Your task to perform on an android device: turn off smart reply in the gmail app Image 0: 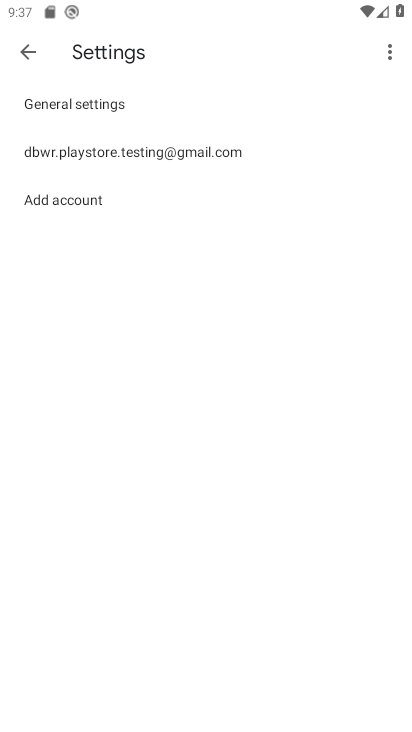
Step 0: press home button
Your task to perform on an android device: turn off smart reply in the gmail app Image 1: 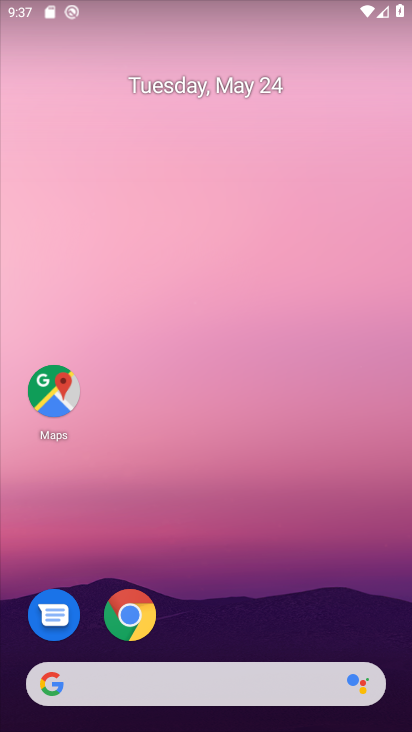
Step 1: drag from (363, 581) to (334, 232)
Your task to perform on an android device: turn off smart reply in the gmail app Image 2: 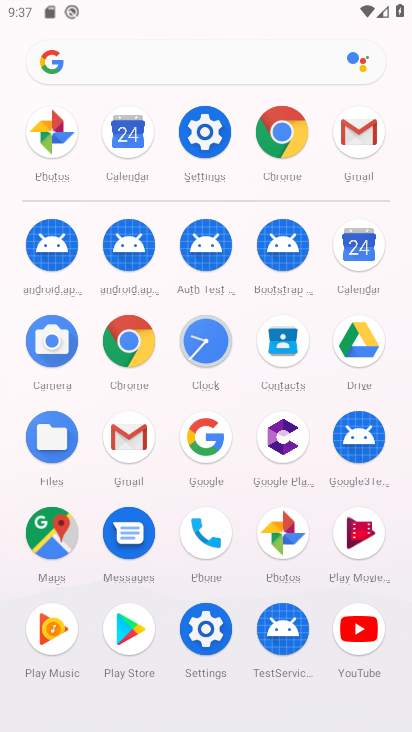
Step 2: click (137, 444)
Your task to perform on an android device: turn off smart reply in the gmail app Image 3: 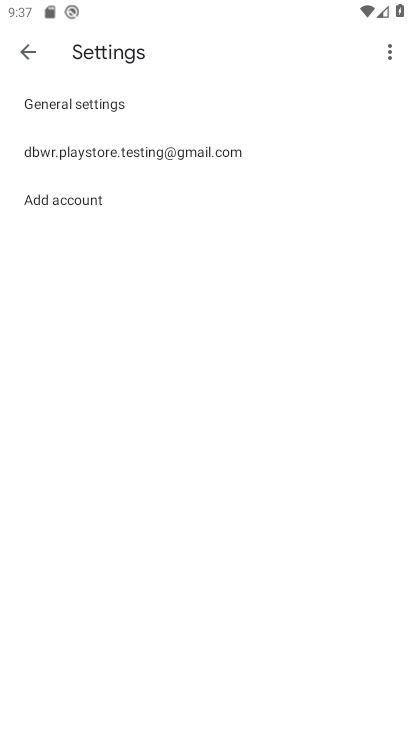
Step 3: click (140, 148)
Your task to perform on an android device: turn off smart reply in the gmail app Image 4: 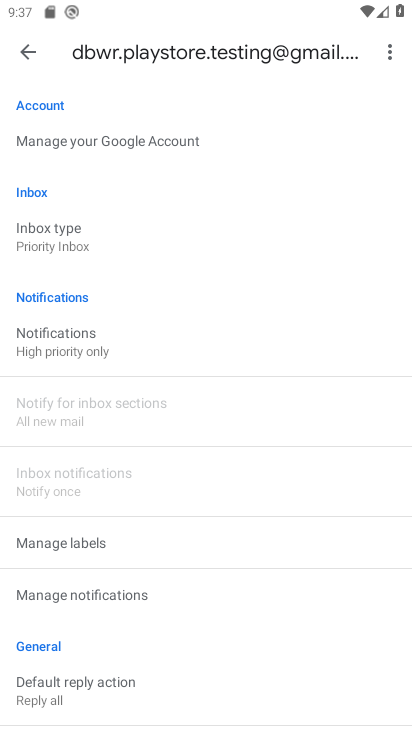
Step 4: drag from (265, 594) to (262, 487)
Your task to perform on an android device: turn off smart reply in the gmail app Image 5: 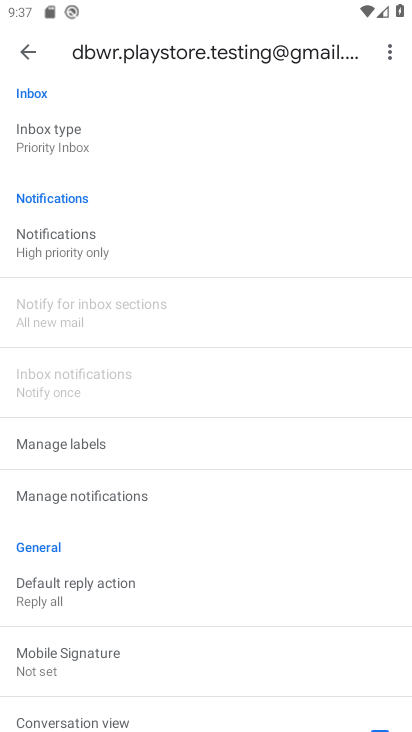
Step 5: drag from (287, 637) to (283, 469)
Your task to perform on an android device: turn off smart reply in the gmail app Image 6: 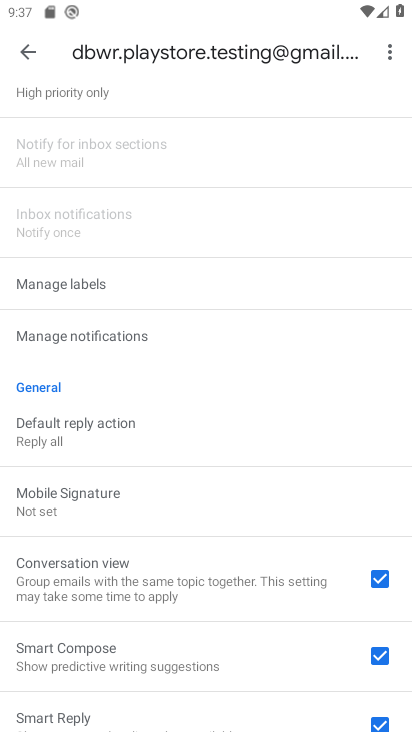
Step 6: drag from (280, 610) to (263, 463)
Your task to perform on an android device: turn off smart reply in the gmail app Image 7: 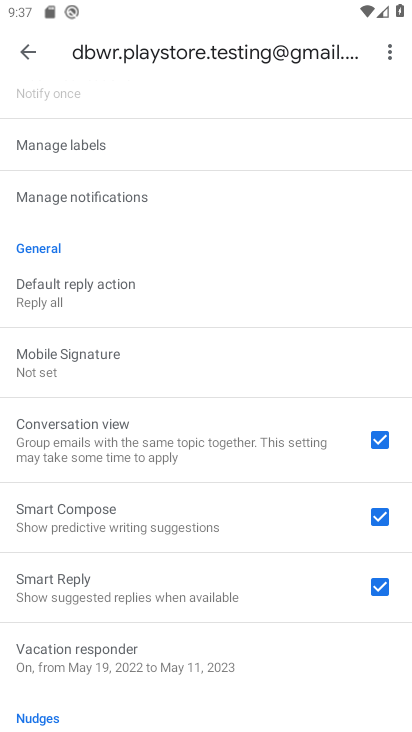
Step 7: click (369, 587)
Your task to perform on an android device: turn off smart reply in the gmail app Image 8: 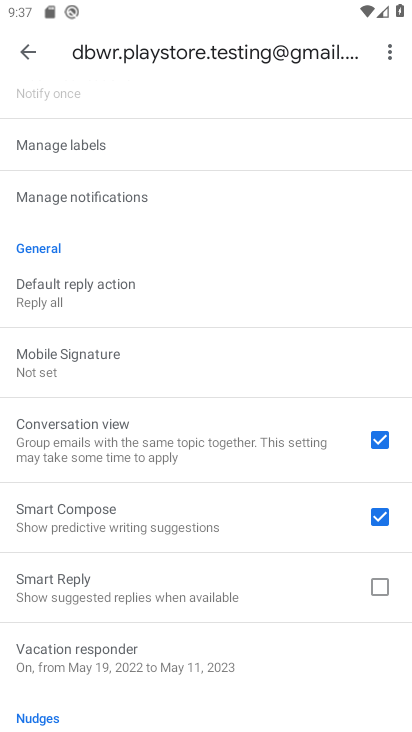
Step 8: task complete